Your task to perform on an android device: open app "Google Photos" Image 0: 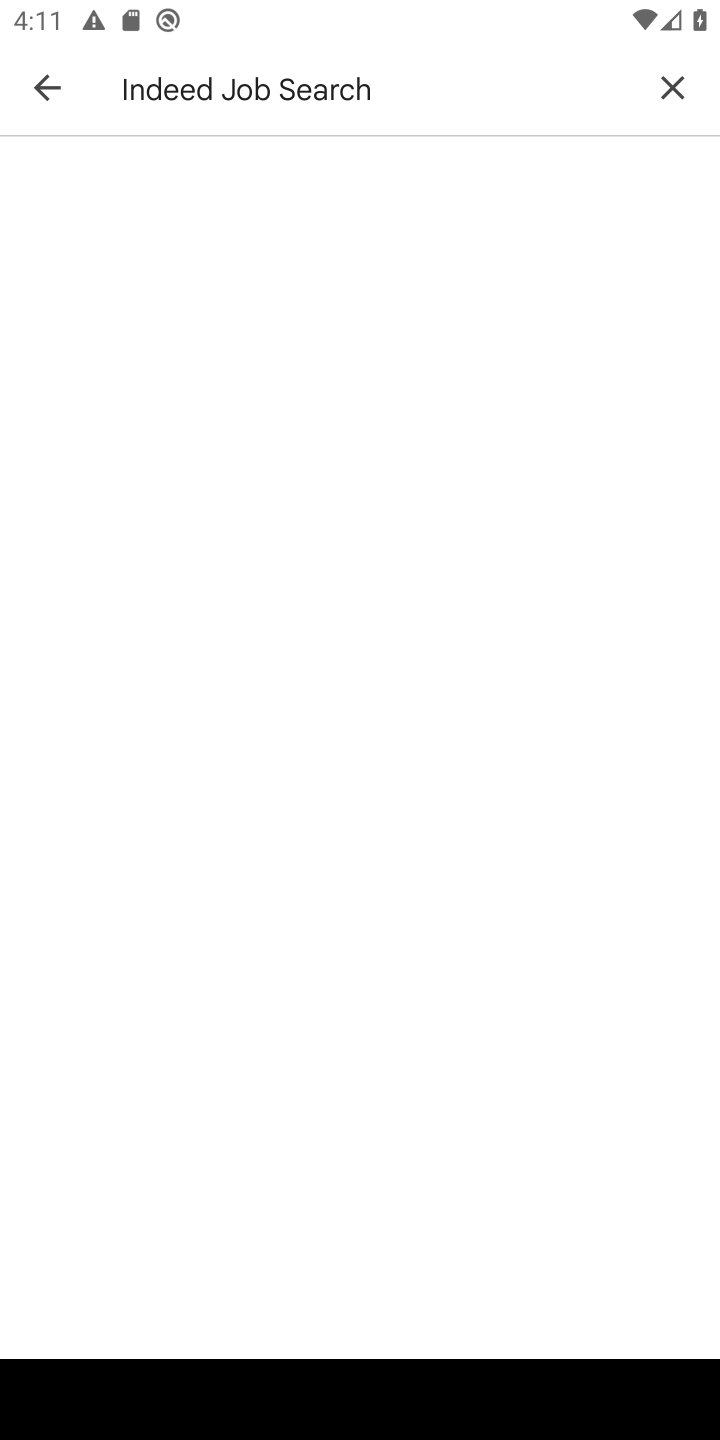
Step 0: press home button
Your task to perform on an android device: open app "Google Photos" Image 1: 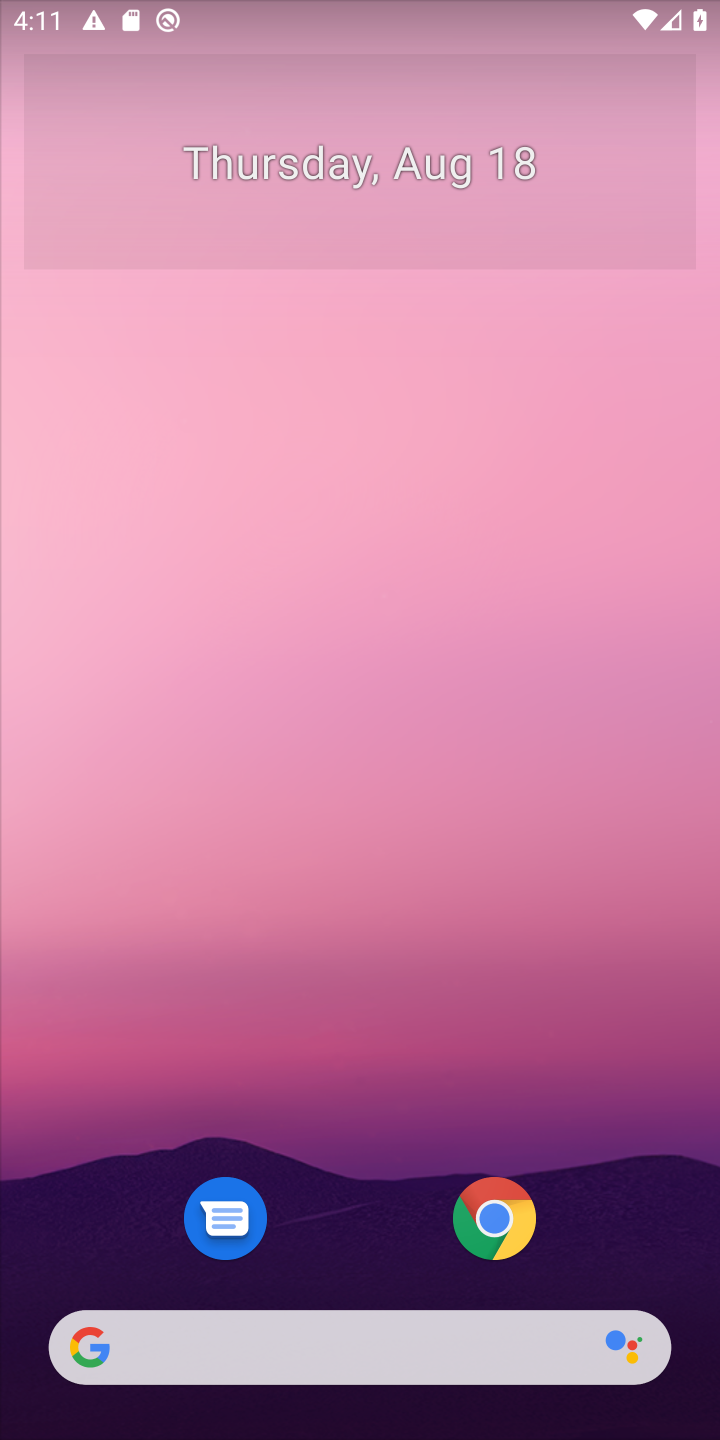
Step 1: drag from (377, 1132) to (395, 352)
Your task to perform on an android device: open app "Google Photos" Image 2: 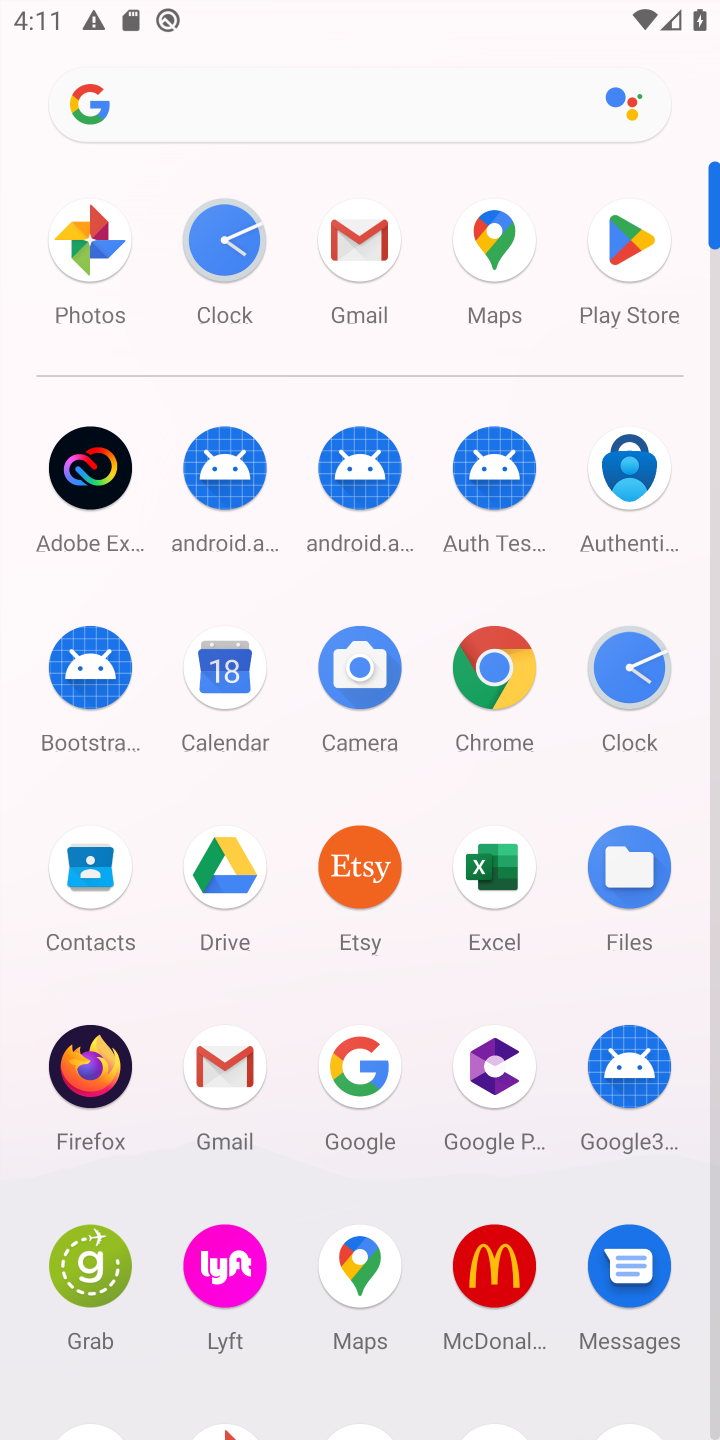
Step 2: click (616, 271)
Your task to perform on an android device: open app "Google Photos" Image 3: 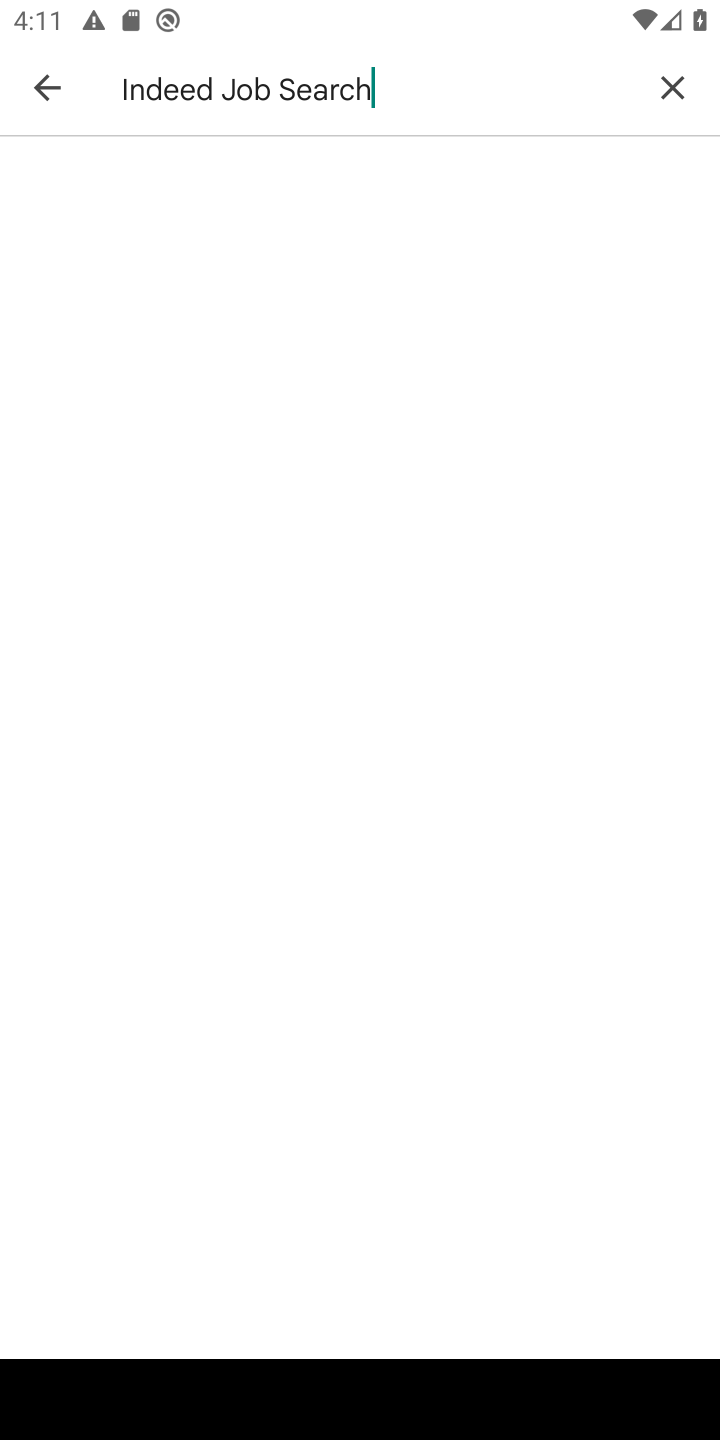
Step 3: click (666, 68)
Your task to perform on an android device: open app "Google Photos" Image 4: 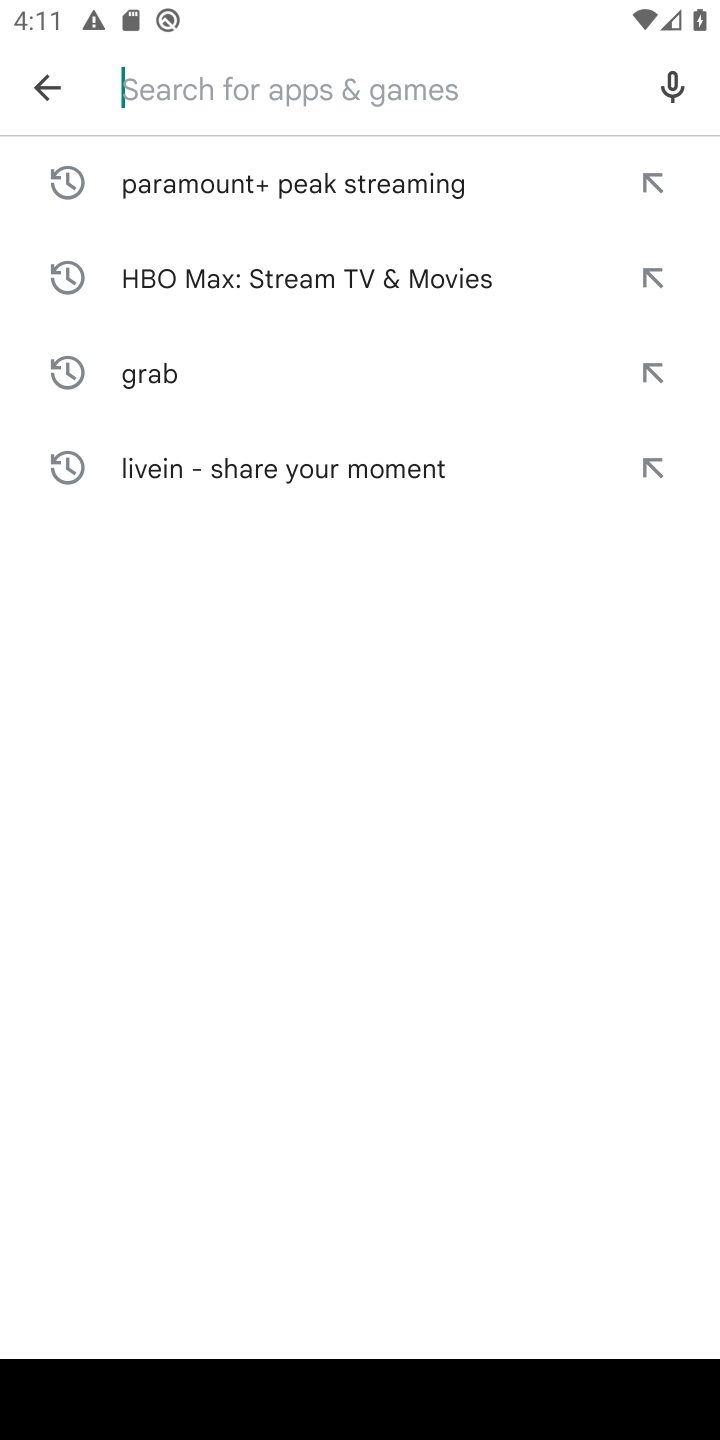
Step 4: type "Google Photos"
Your task to perform on an android device: open app "Google Photos" Image 5: 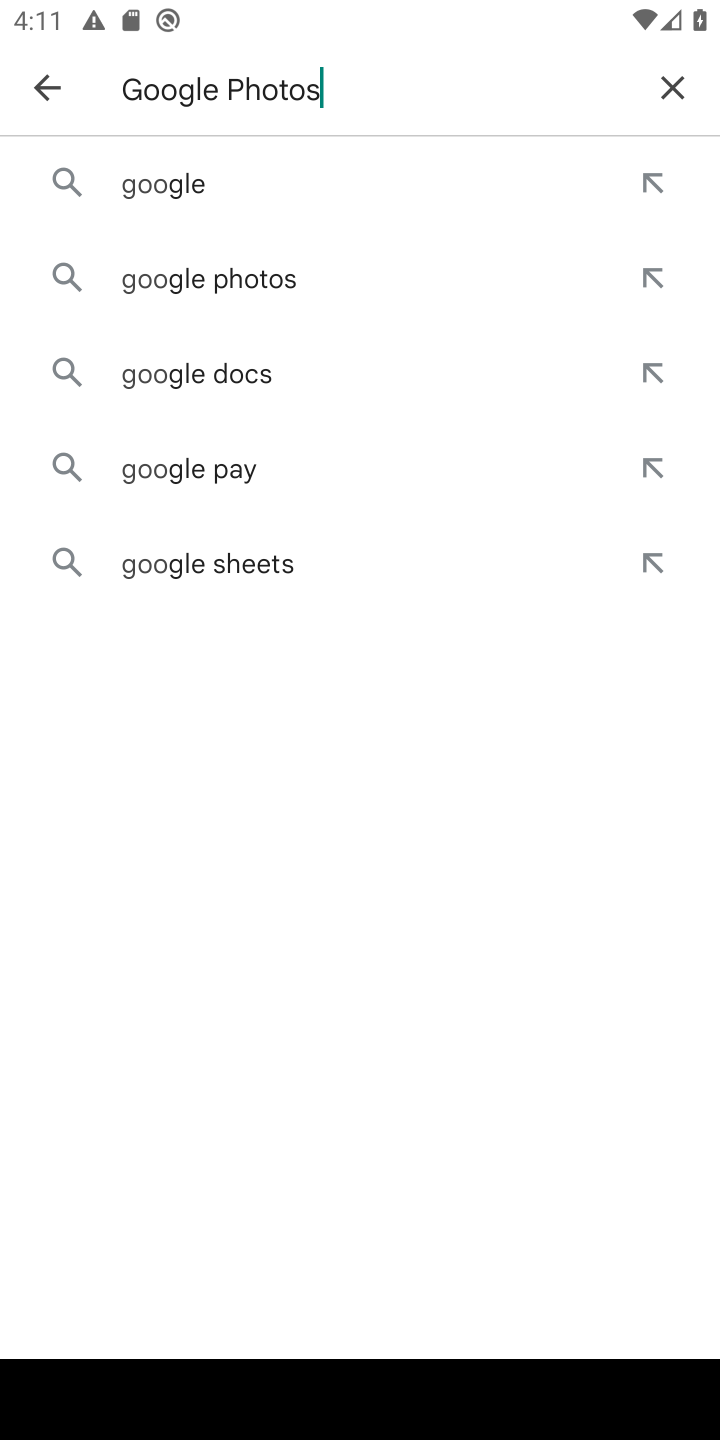
Step 5: type ""
Your task to perform on an android device: open app "Google Photos" Image 6: 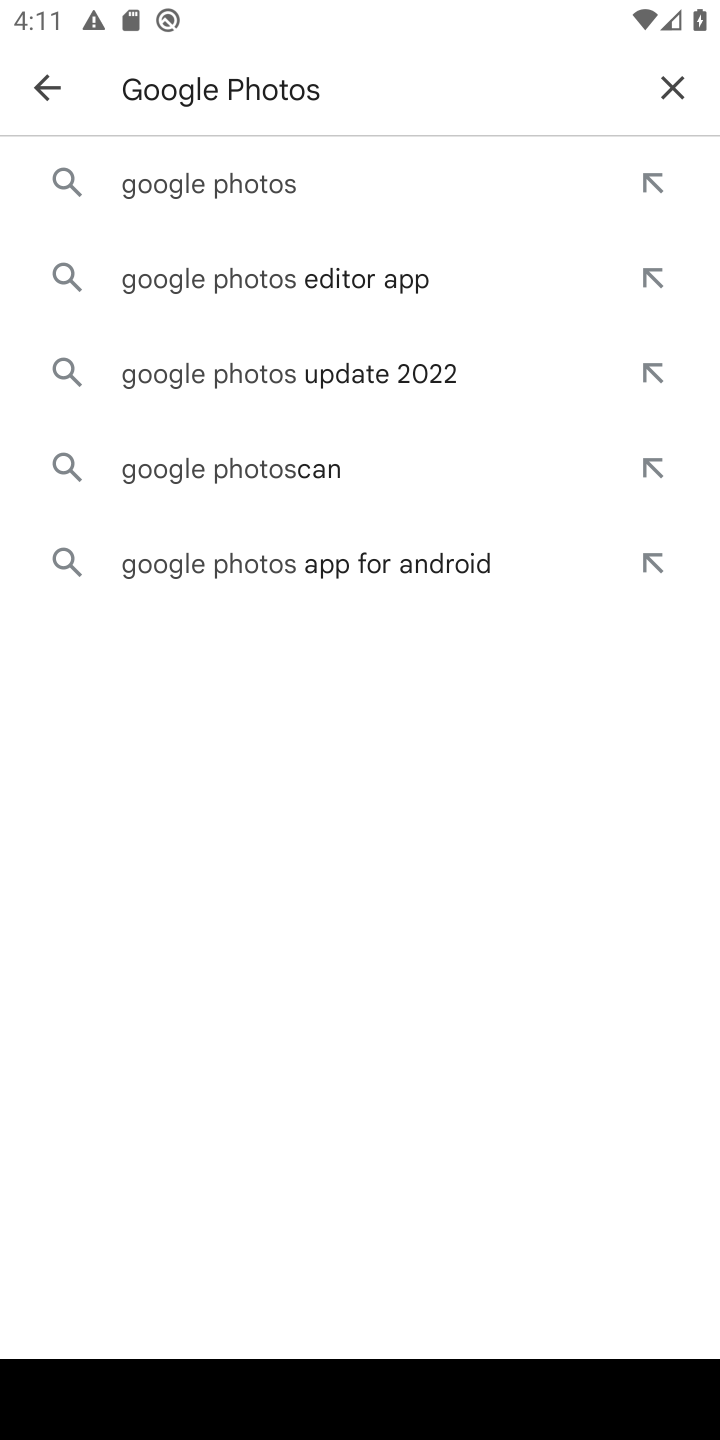
Step 6: click (119, 178)
Your task to perform on an android device: open app "Google Photos" Image 7: 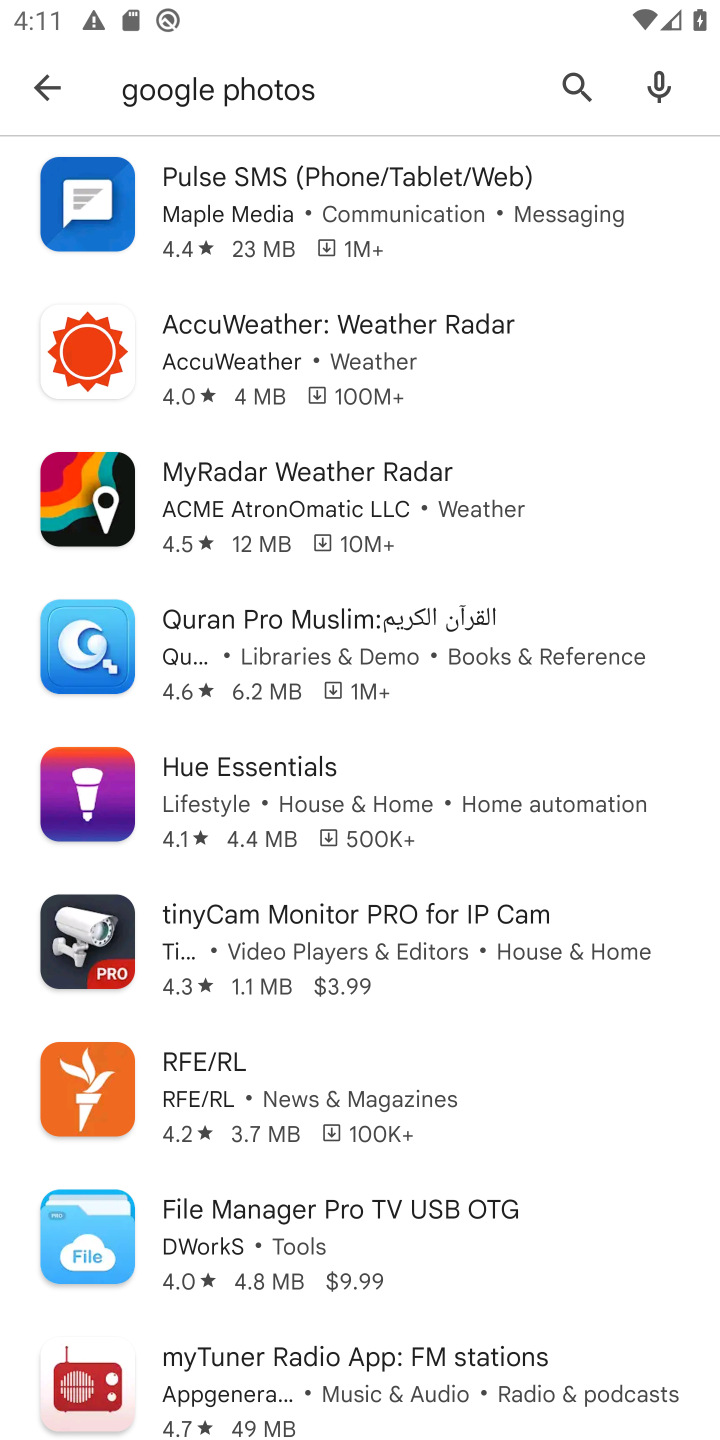
Step 7: task complete